Your task to perform on an android device: Is it going to rain tomorrow? Image 0: 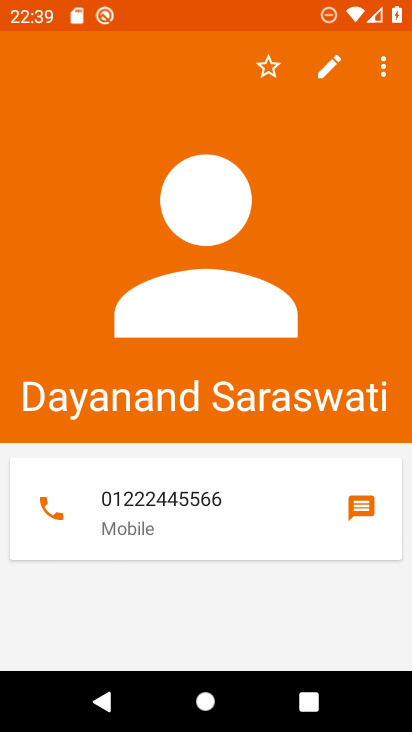
Step 0: press home button
Your task to perform on an android device: Is it going to rain tomorrow? Image 1: 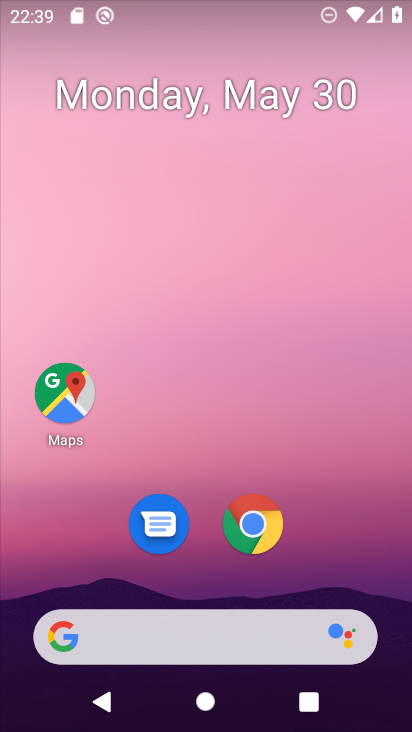
Step 1: click (252, 655)
Your task to perform on an android device: Is it going to rain tomorrow? Image 2: 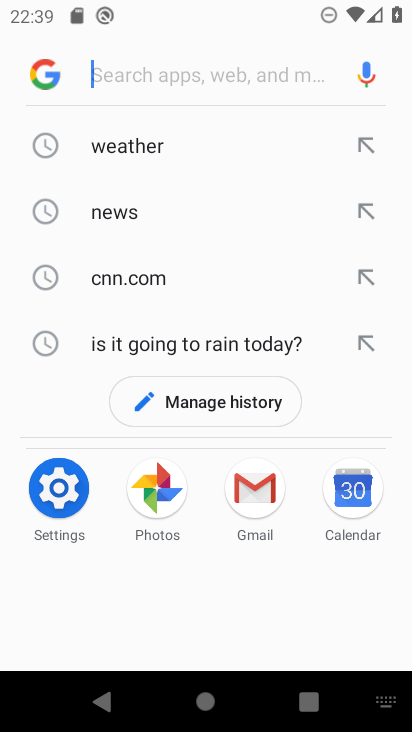
Step 2: click (141, 151)
Your task to perform on an android device: Is it going to rain tomorrow? Image 3: 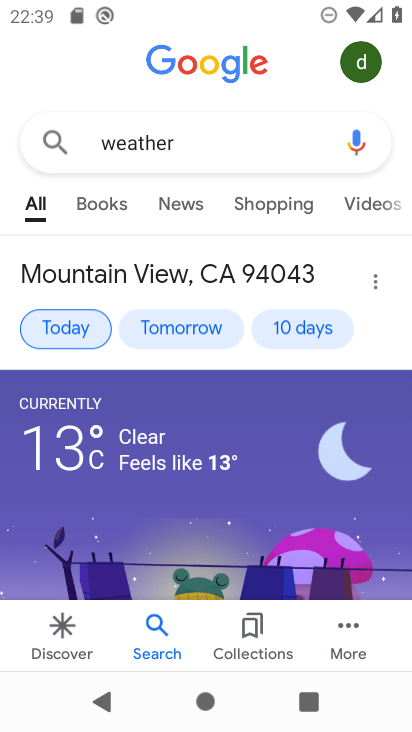
Step 3: click (81, 320)
Your task to perform on an android device: Is it going to rain tomorrow? Image 4: 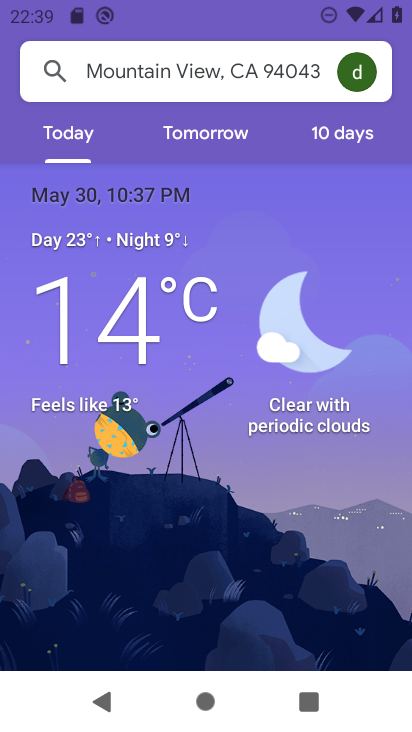
Step 4: click (242, 123)
Your task to perform on an android device: Is it going to rain tomorrow? Image 5: 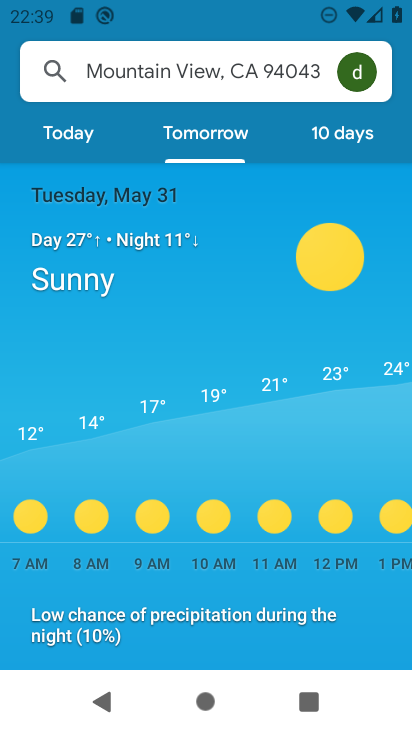
Step 5: task complete